Your task to perform on an android device: Open the web browser Image 0: 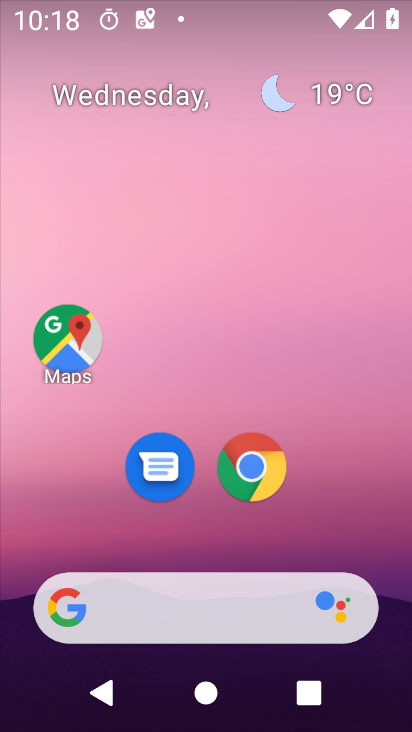
Step 0: click (261, 477)
Your task to perform on an android device: Open the web browser Image 1: 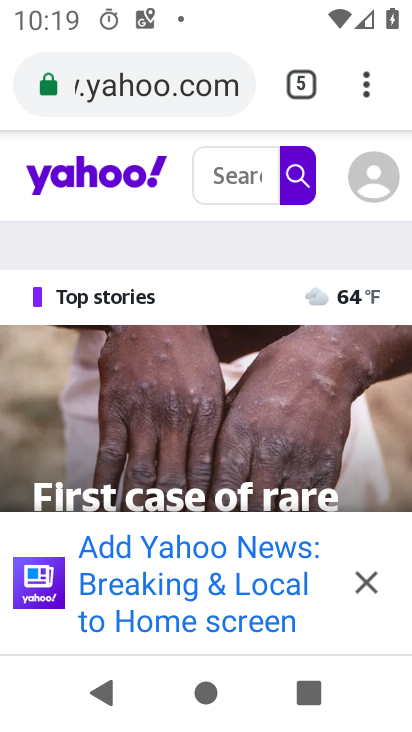
Step 1: task complete